Your task to perform on an android device: Search for Mexican restaurants on Maps Image 0: 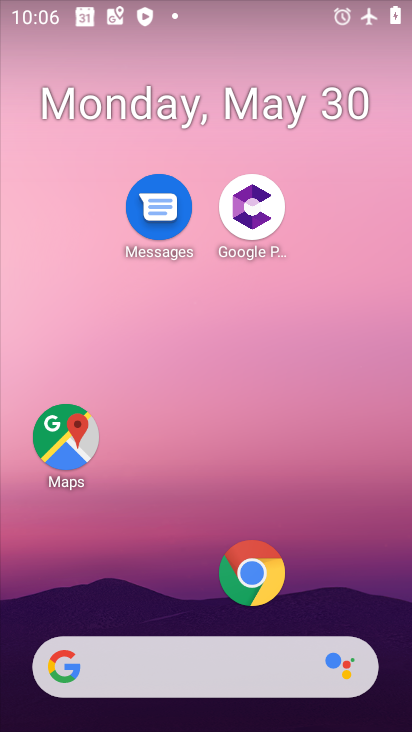
Step 0: drag from (249, 668) to (248, 147)
Your task to perform on an android device: Search for Mexican restaurants on Maps Image 1: 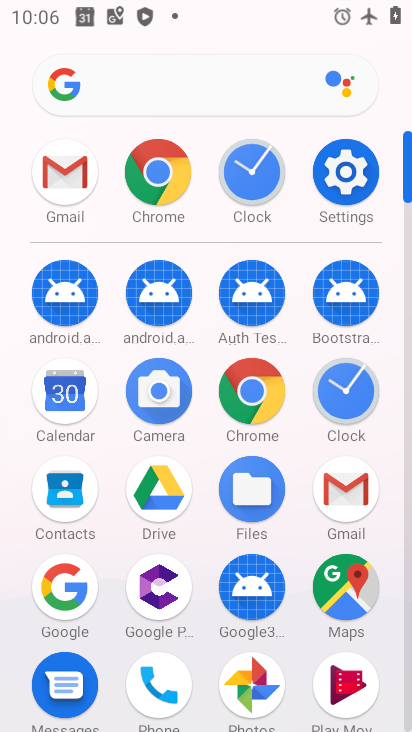
Step 1: click (345, 592)
Your task to perform on an android device: Search for Mexican restaurants on Maps Image 2: 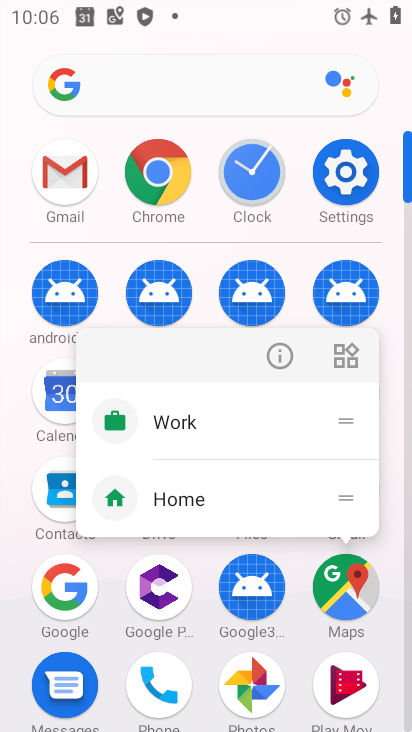
Step 2: click (347, 604)
Your task to perform on an android device: Search for Mexican restaurants on Maps Image 3: 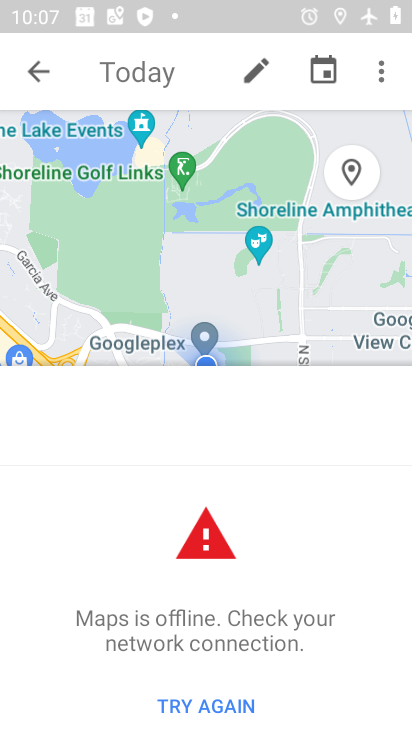
Step 3: click (39, 84)
Your task to perform on an android device: Search for Mexican restaurants on Maps Image 4: 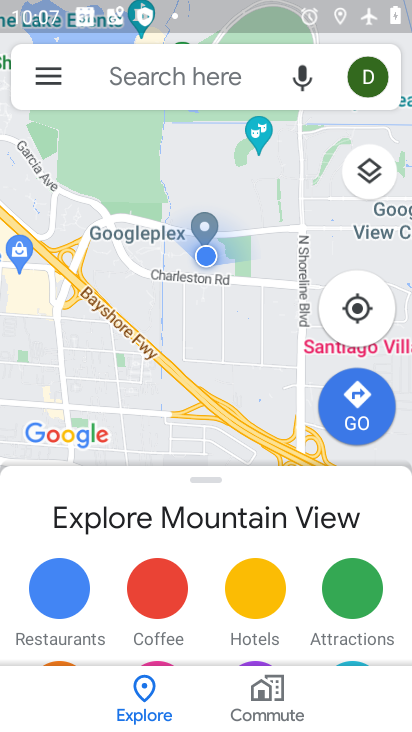
Step 4: click (146, 81)
Your task to perform on an android device: Search for Mexican restaurants on Maps Image 5: 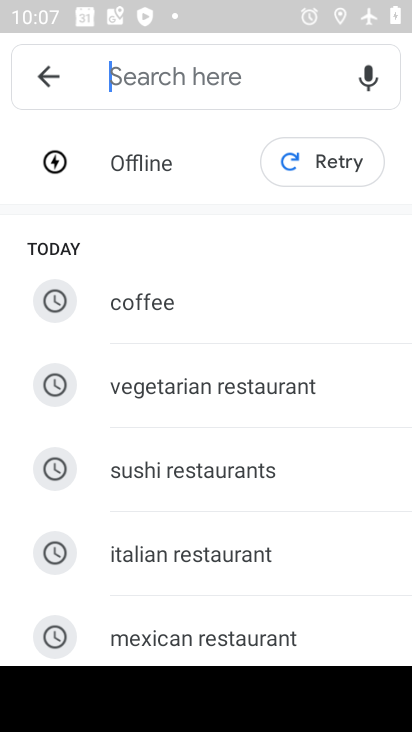
Step 5: click (246, 637)
Your task to perform on an android device: Search for Mexican restaurants on Maps Image 6: 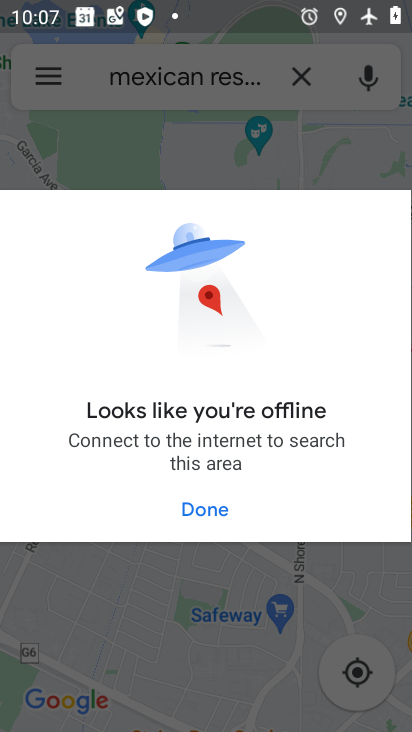
Step 6: task complete